Your task to perform on an android device: Open Chrome and go to settings Image 0: 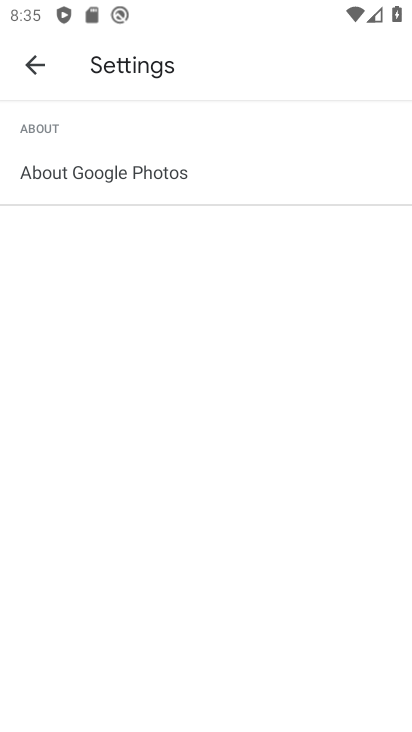
Step 0: click (33, 58)
Your task to perform on an android device: Open Chrome and go to settings Image 1: 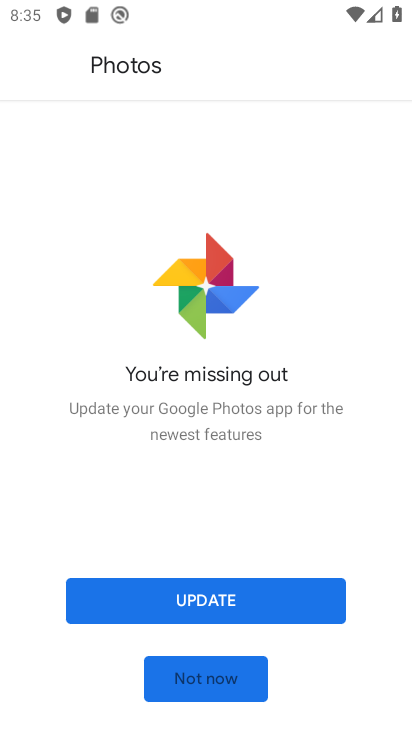
Step 1: press home button
Your task to perform on an android device: Open Chrome and go to settings Image 2: 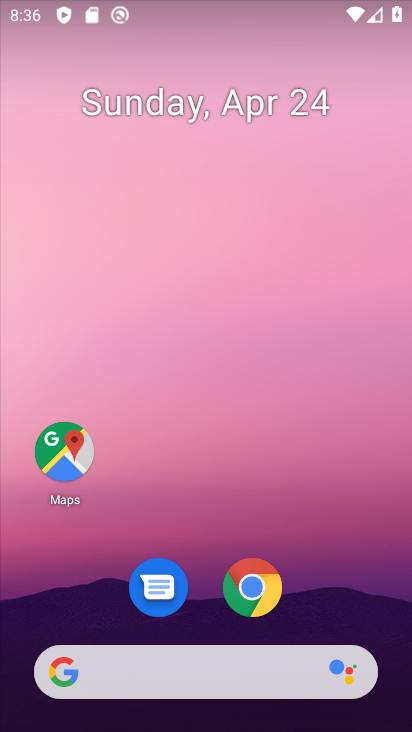
Step 2: click (253, 578)
Your task to perform on an android device: Open Chrome and go to settings Image 3: 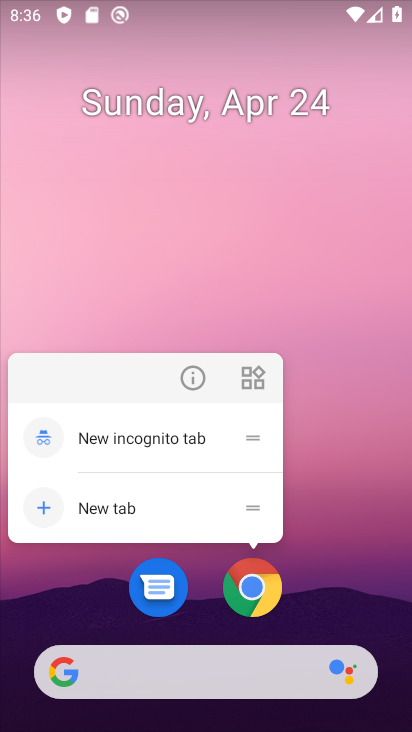
Step 3: click (255, 587)
Your task to perform on an android device: Open Chrome and go to settings Image 4: 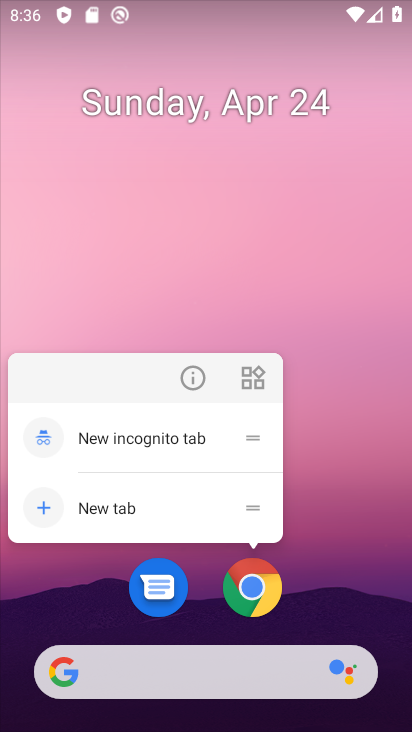
Step 4: click (255, 587)
Your task to perform on an android device: Open Chrome and go to settings Image 5: 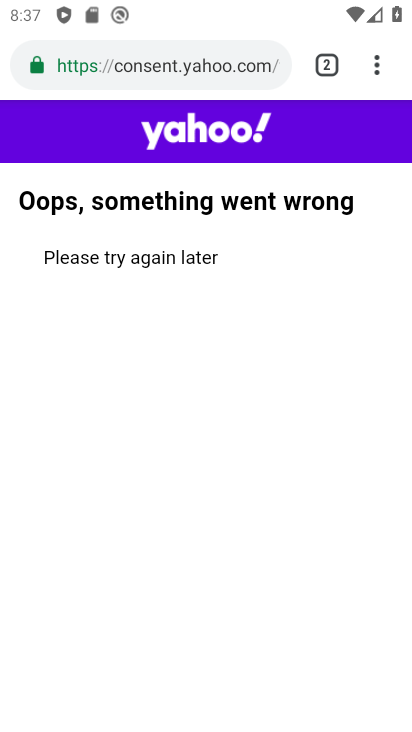
Step 5: task complete